Your task to perform on an android device: check data usage Image 0: 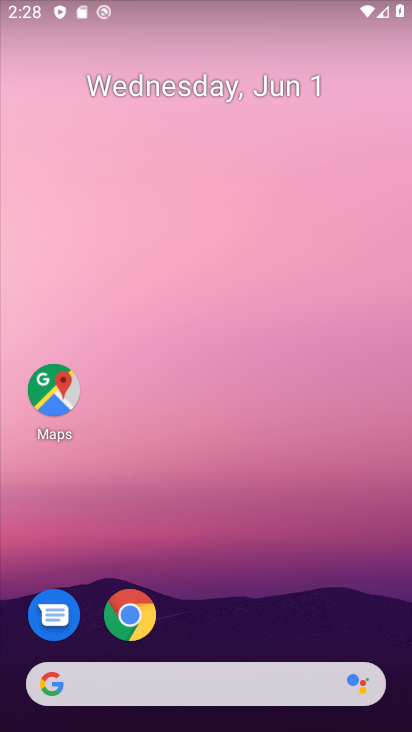
Step 0: drag from (302, 651) to (255, 283)
Your task to perform on an android device: check data usage Image 1: 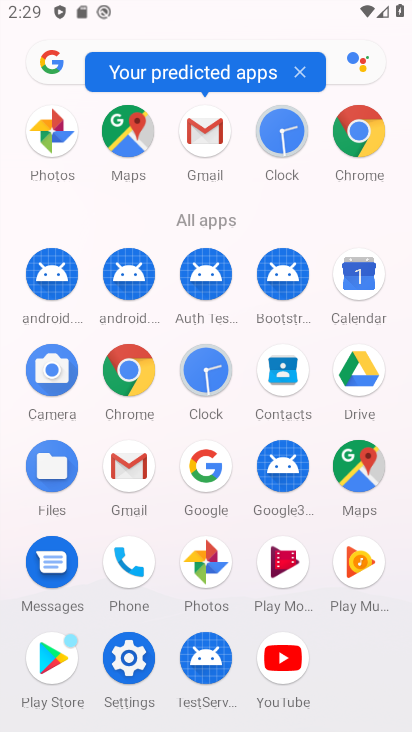
Step 1: click (140, 649)
Your task to perform on an android device: check data usage Image 2: 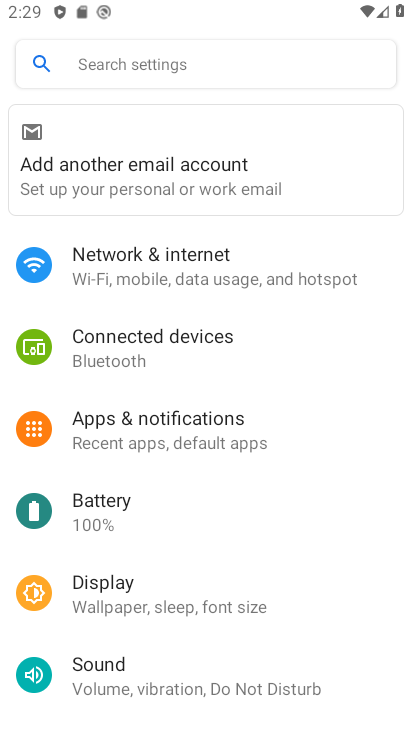
Step 2: click (190, 264)
Your task to perform on an android device: check data usage Image 3: 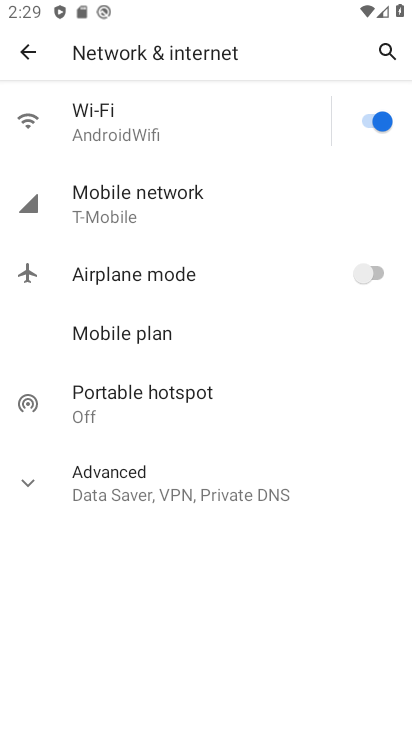
Step 3: click (158, 132)
Your task to perform on an android device: check data usage Image 4: 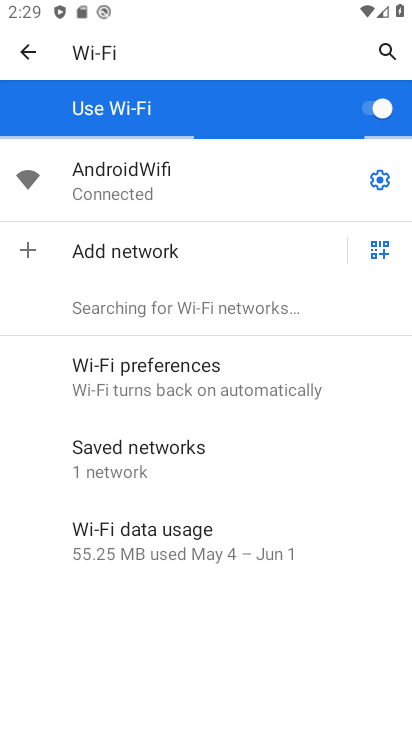
Step 4: click (185, 521)
Your task to perform on an android device: check data usage Image 5: 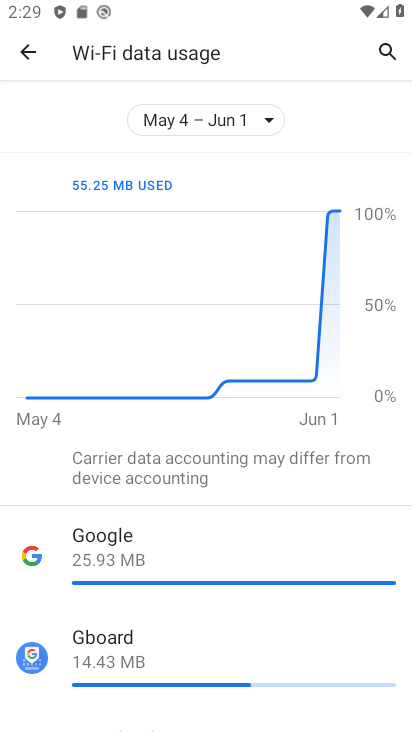
Step 5: task complete